Your task to perform on an android device: Clear the shopping cart on newegg.com. Image 0: 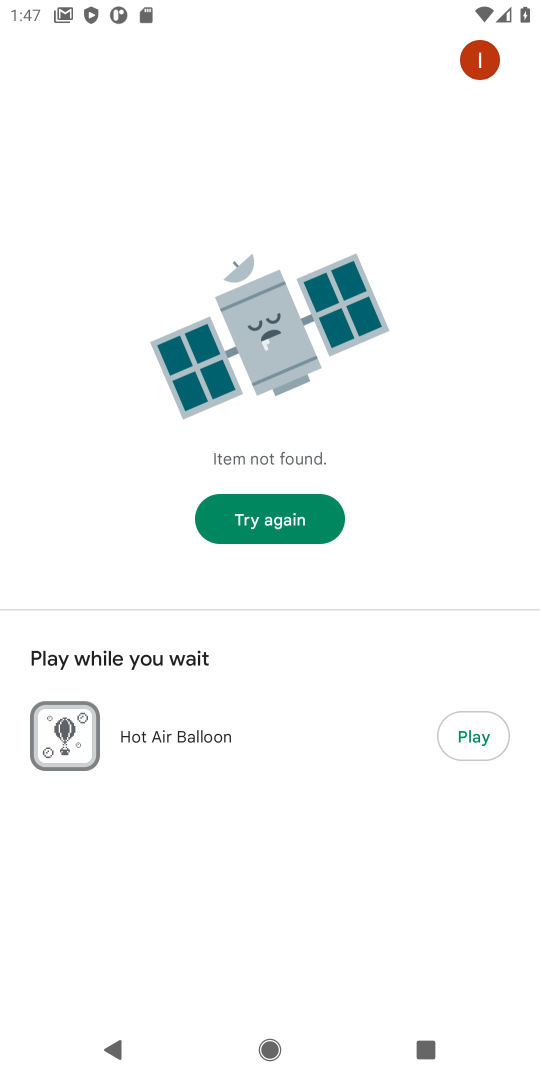
Step 0: press home button
Your task to perform on an android device: Clear the shopping cart on newegg.com. Image 1: 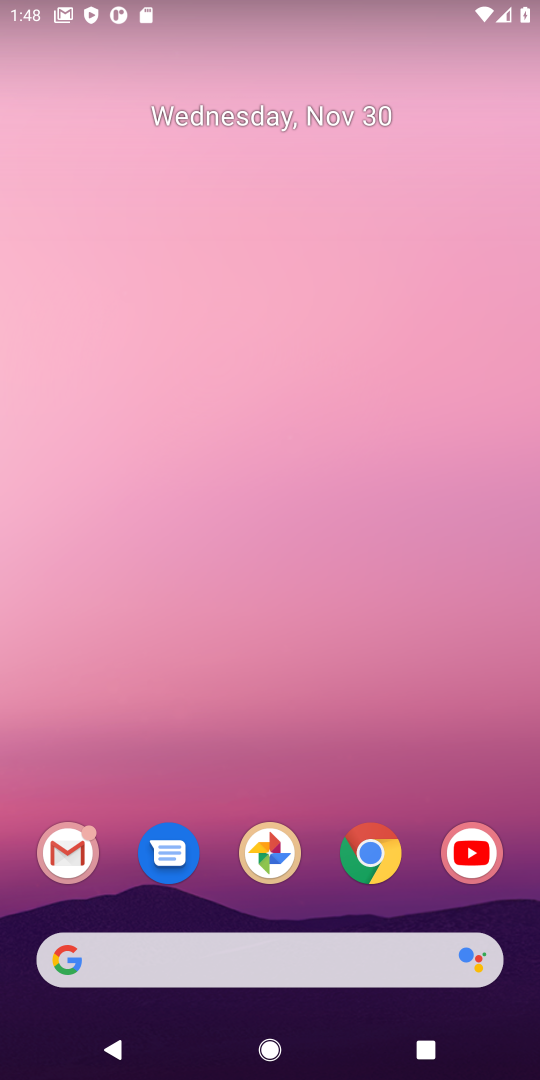
Step 1: click (382, 860)
Your task to perform on an android device: Clear the shopping cart on newegg.com. Image 2: 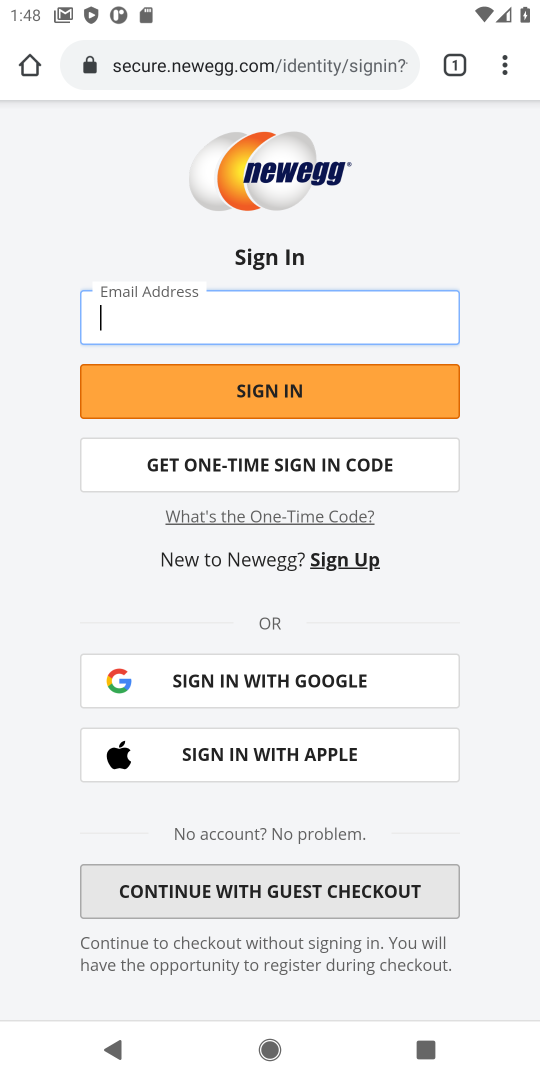
Step 2: press back button
Your task to perform on an android device: Clear the shopping cart on newegg.com. Image 3: 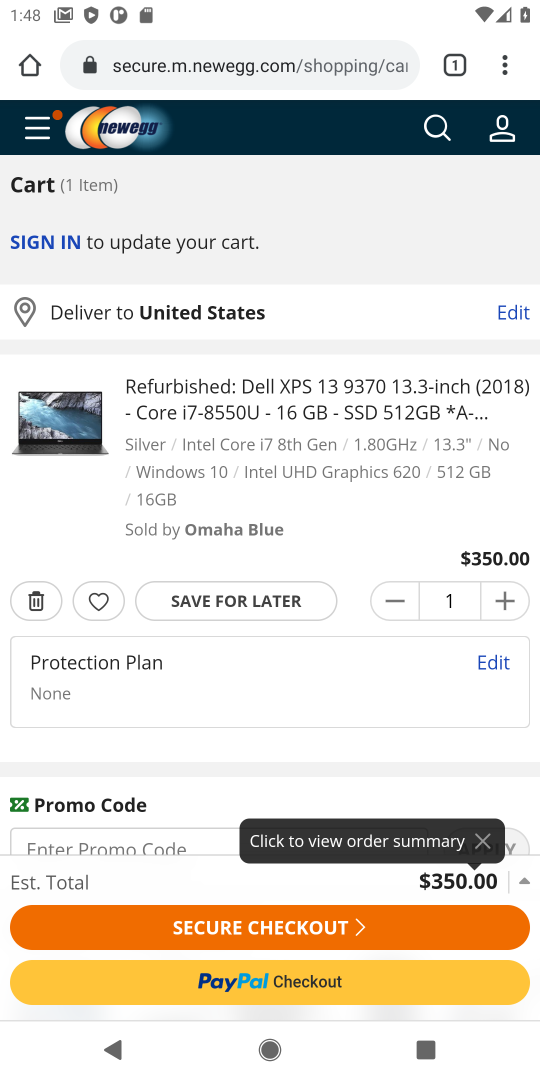
Step 3: click (34, 607)
Your task to perform on an android device: Clear the shopping cart on newegg.com. Image 4: 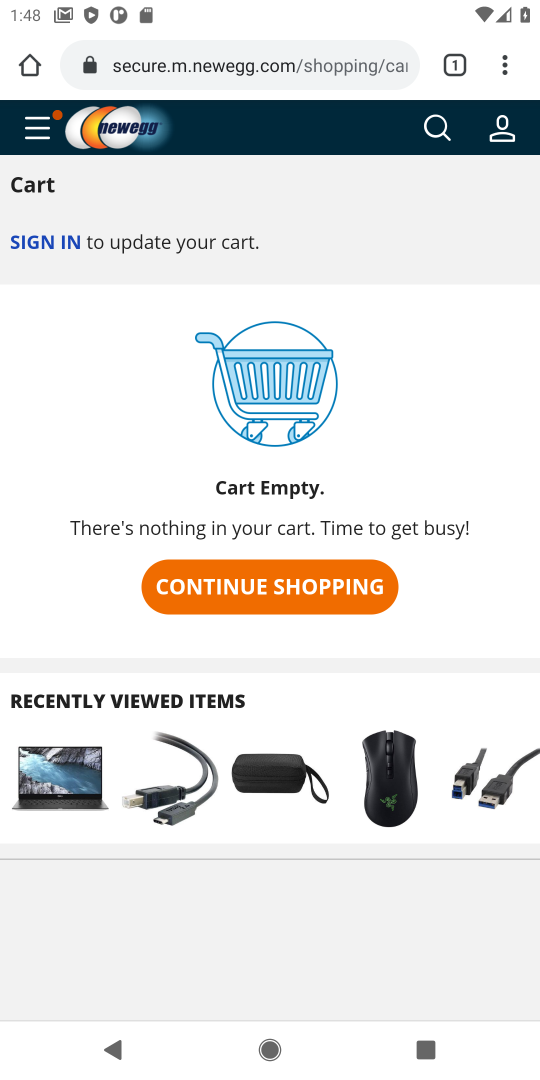
Step 4: task complete